Your task to perform on an android device: Go to Android settings Image 0: 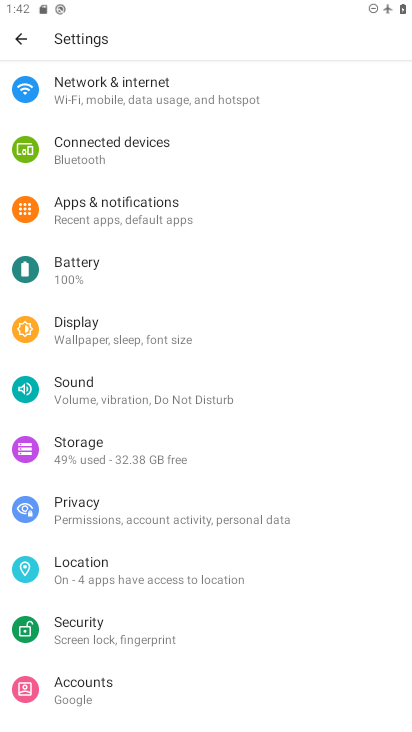
Step 0: drag from (217, 653) to (267, 51)
Your task to perform on an android device: Go to Android settings Image 1: 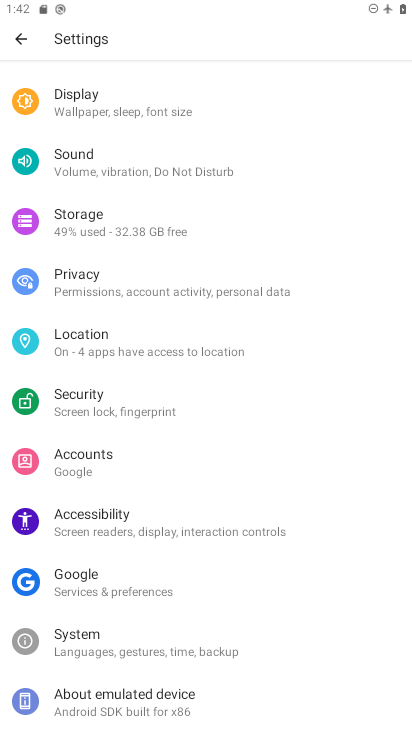
Step 1: click (167, 698)
Your task to perform on an android device: Go to Android settings Image 2: 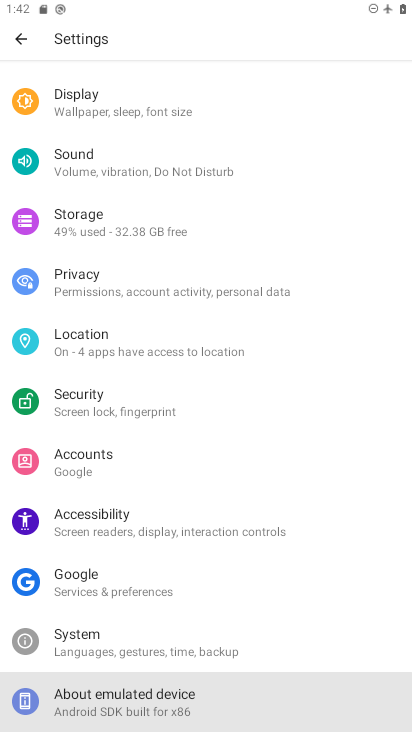
Step 2: click (167, 698)
Your task to perform on an android device: Go to Android settings Image 3: 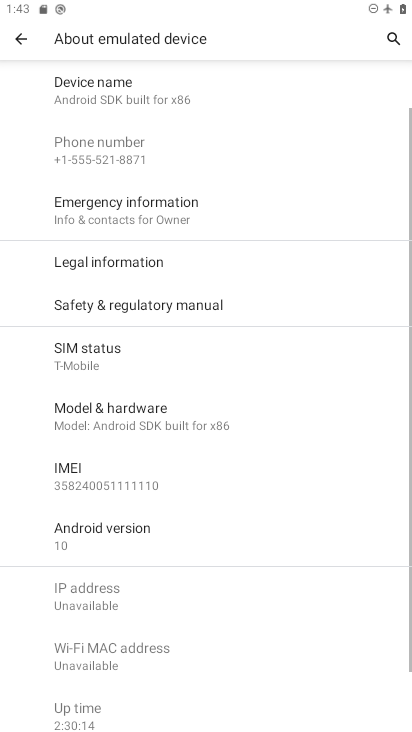
Step 3: click (94, 540)
Your task to perform on an android device: Go to Android settings Image 4: 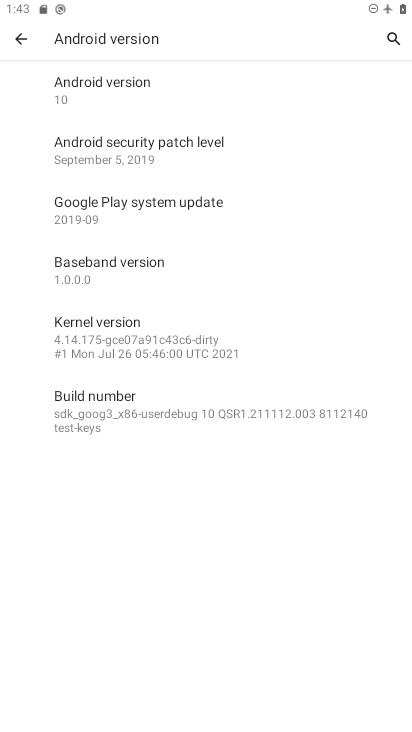
Step 4: task complete